Your task to perform on an android device: When is my next appointment? Image 0: 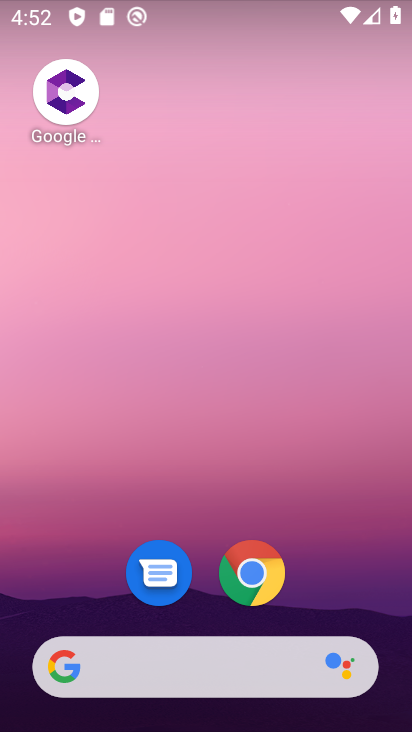
Step 0: drag from (102, 527) to (157, 117)
Your task to perform on an android device: When is my next appointment? Image 1: 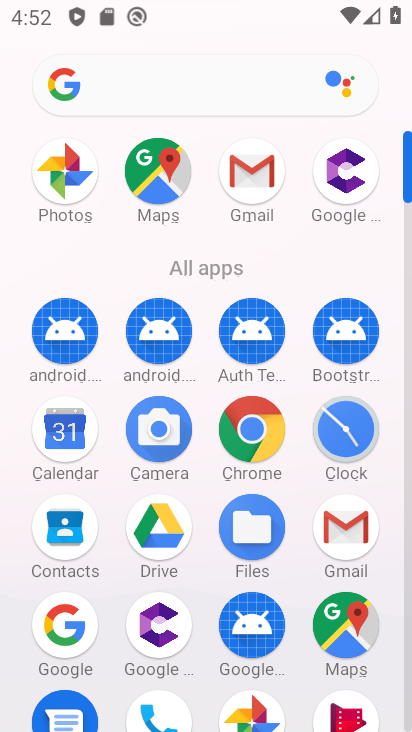
Step 1: click (59, 434)
Your task to perform on an android device: When is my next appointment? Image 2: 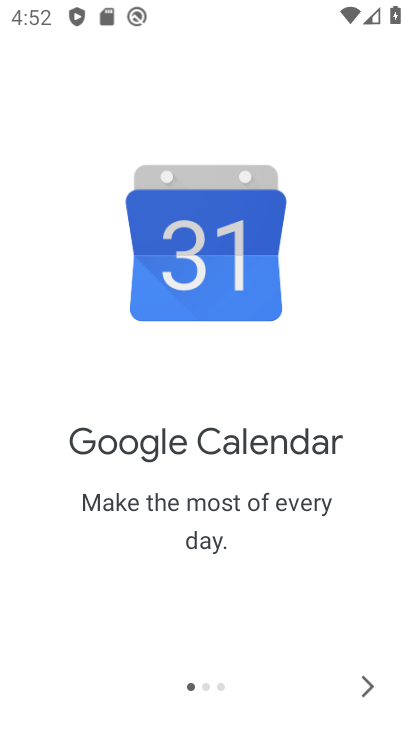
Step 2: click (378, 697)
Your task to perform on an android device: When is my next appointment? Image 3: 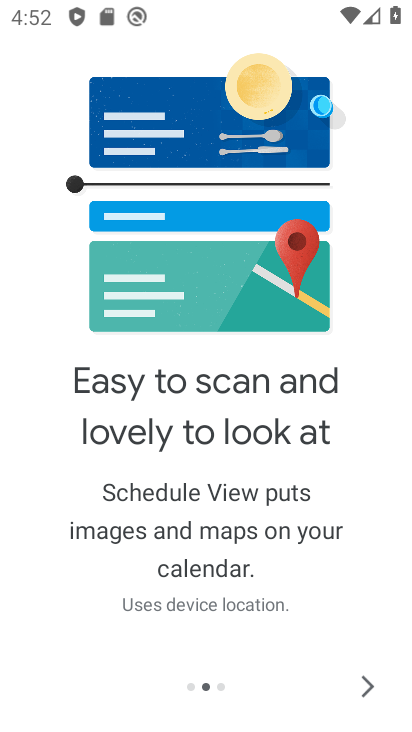
Step 3: click (370, 680)
Your task to perform on an android device: When is my next appointment? Image 4: 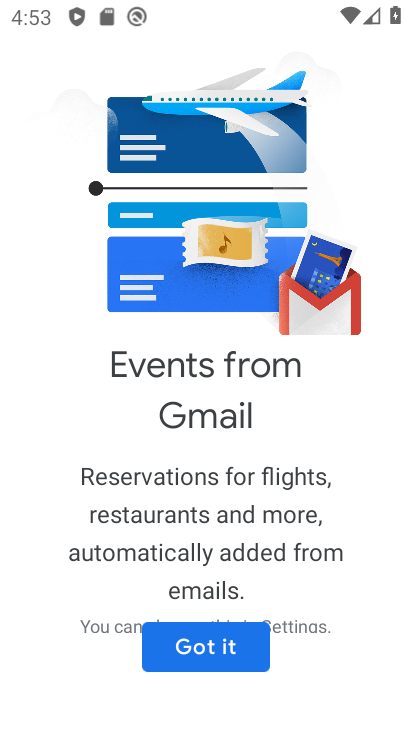
Step 4: click (227, 650)
Your task to perform on an android device: When is my next appointment? Image 5: 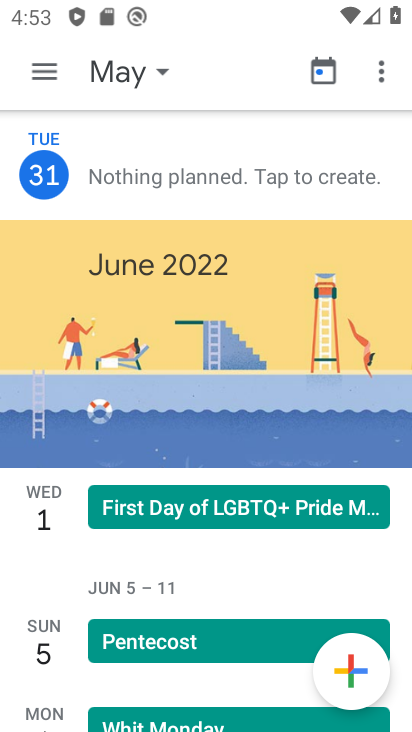
Step 5: click (109, 82)
Your task to perform on an android device: When is my next appointment? Image 6: 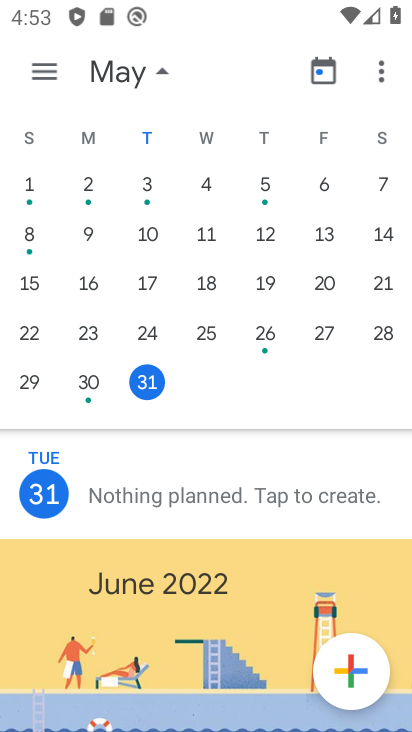
Step 6: click (146, 382)
Your task to perform on an android device: When is my next appointment? Image 7: 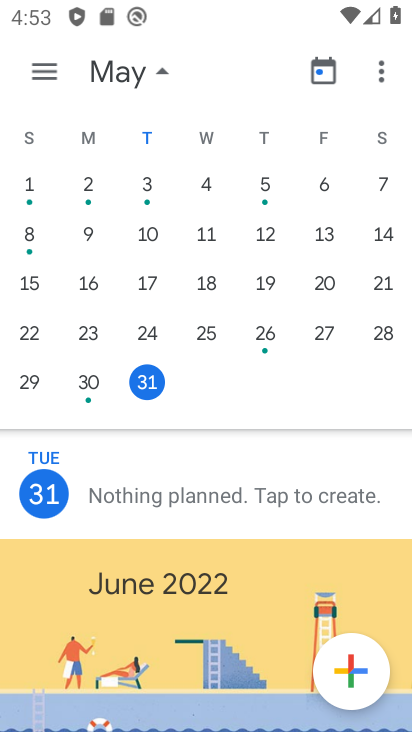
Step 7: task complete